Your task to perform on an android device: Turn off the flashlight Image 0: 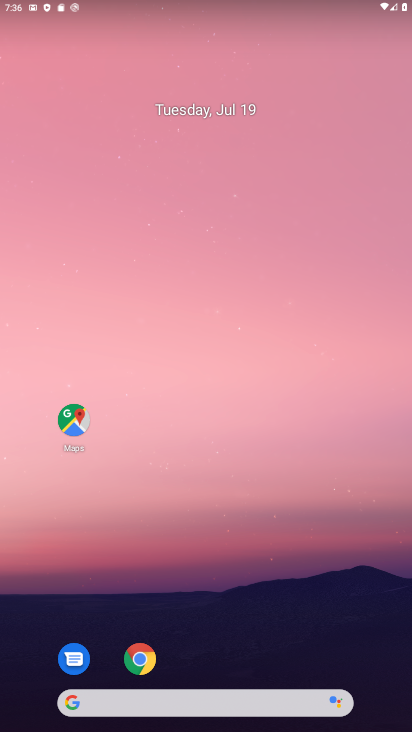
Step 0: drag from (183, 623) to (248, 149)
Your task to perform on an android device: Turn off the flashlight Image 1: 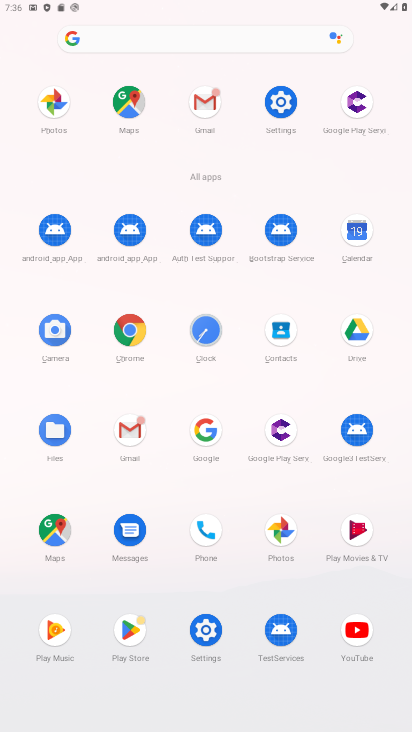
Step 1: click (280, 113)
Your task to perform on an android device: Turn off the flashlight Image 2: 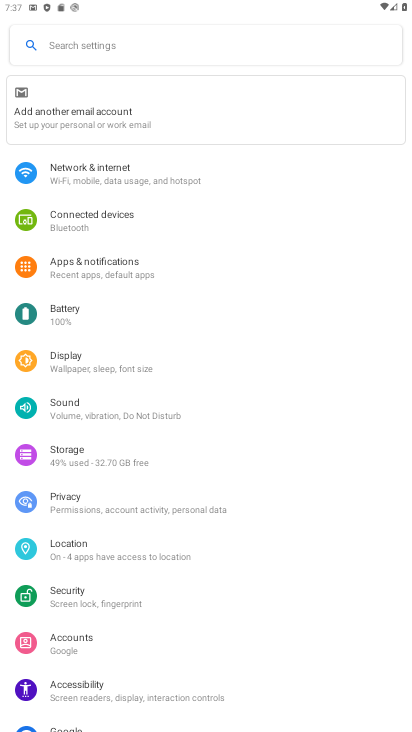
Step 2: task complete